Your task to perform on an android device: Go to privacy settings Image 0: 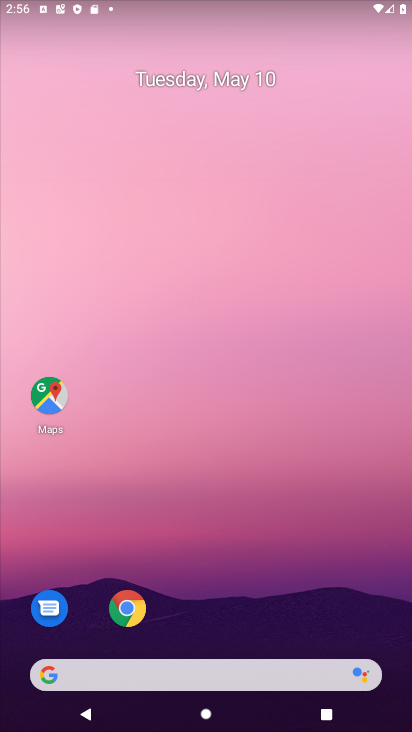
Step 0: drag from (388, 626) to (283, 158)
Your task to perform on an android device: Go to privacy settings Image 1: 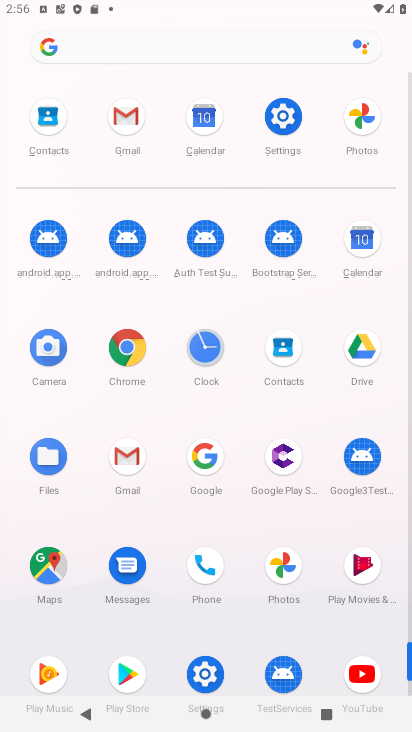
Step 1: click (206, 676)
Your task to perform on an android device: Go to privacy settings Image 2: 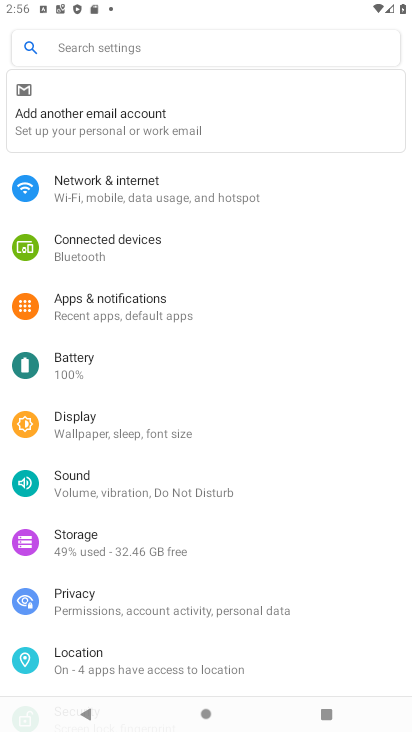
Step 2: click (74, 596)
Your task to perform on an android device: Go to privacy settings Image 3: 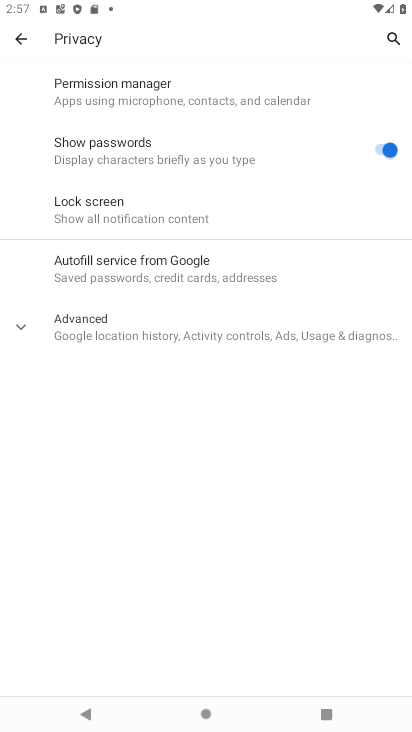
Step 3: click (17, 327)
Your task to perform on an android device: Go to privacy settings Image 4: 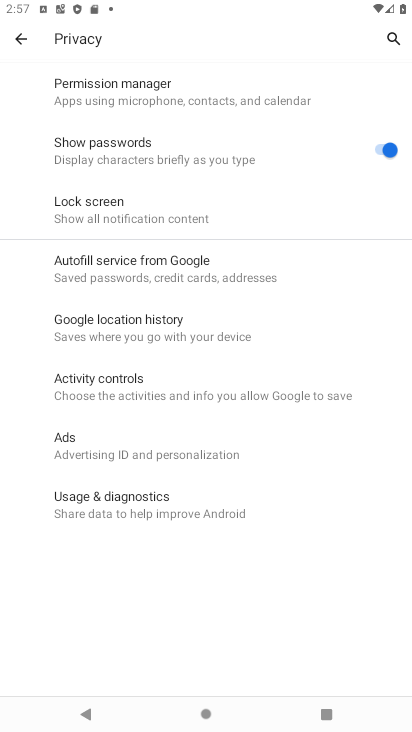
Step 4: task complete